Your task to perform on an android device: find photos in the google photos app Image 0: 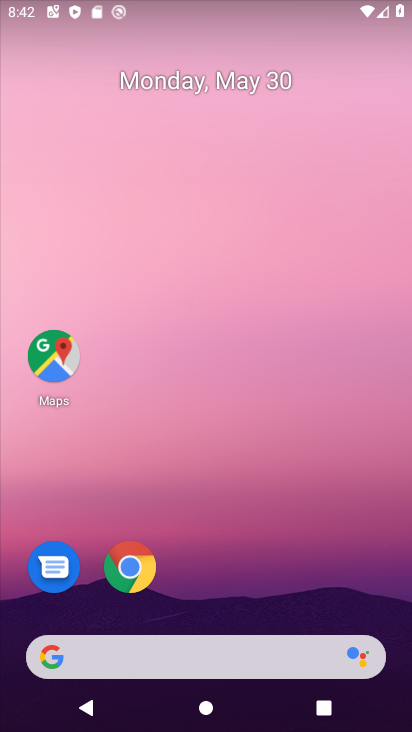
Step 0: drag from (195, 612) to (236, 148)
Your task to perform on an android device: find photos in the google photos app Image 1: 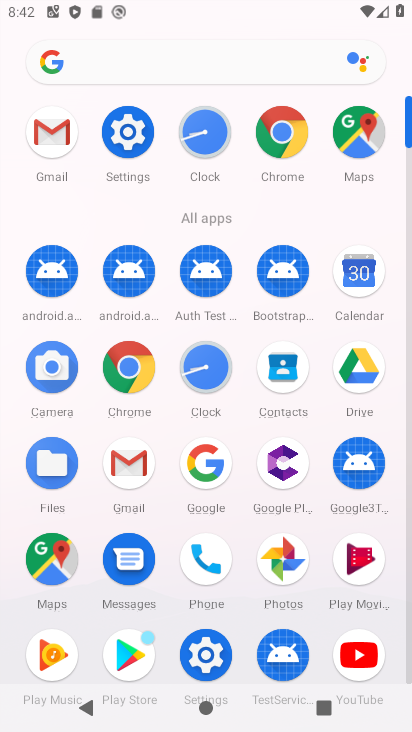
Step 1: click (283, 557)
Your task to perform on an android device: find photos in the google photos app Image 2: 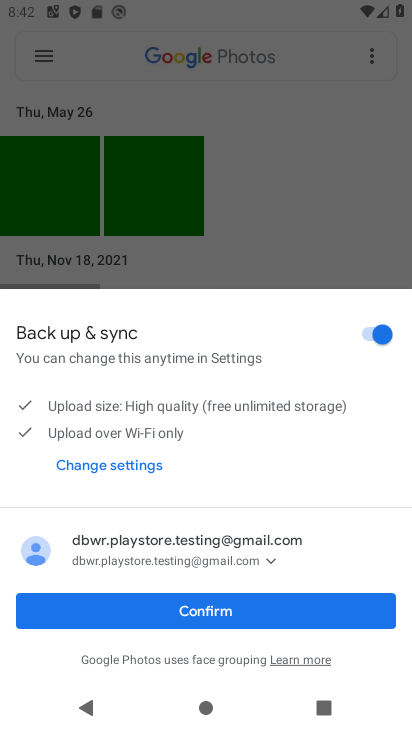
Step 2: click (147, 605)
Your task to perform on an android device: find photos in the google photos app Image 3: 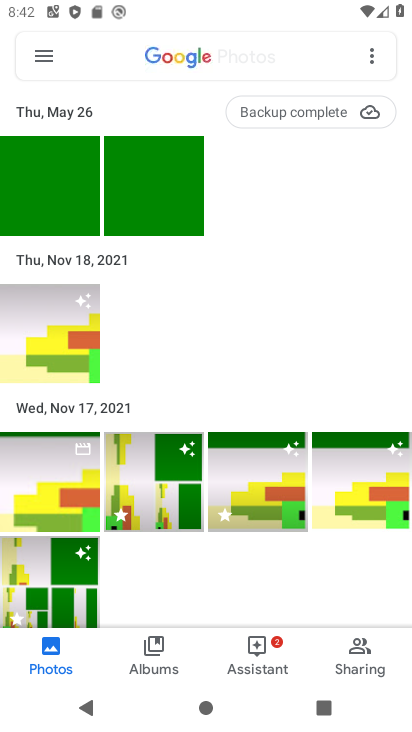
Step 3: task complete